Your task to perform on an android device: turn on showing notifications on the lock screen Image 0: 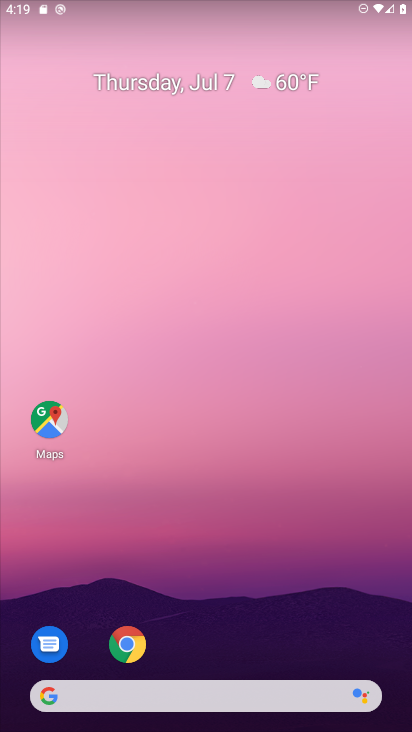
Step 0: drag from (309, 627) to (208, 148)
Your task to perform on an android device: turn on showing notifications on the lock screen Image 1: 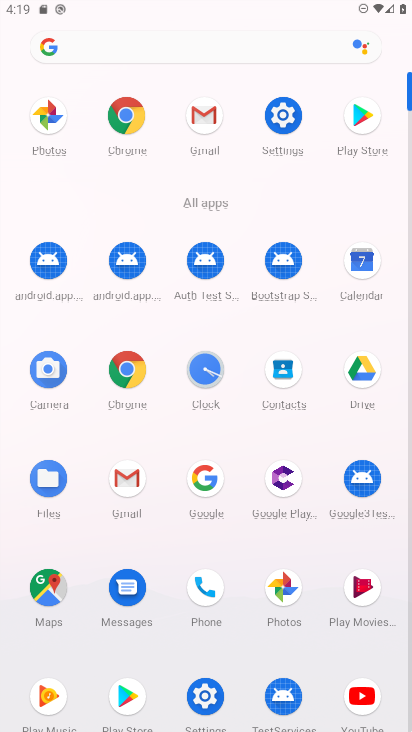
Step 1: click (294, 127)
Your task to perform on an android device: turn on showing notifications on the lock screen Image 2: 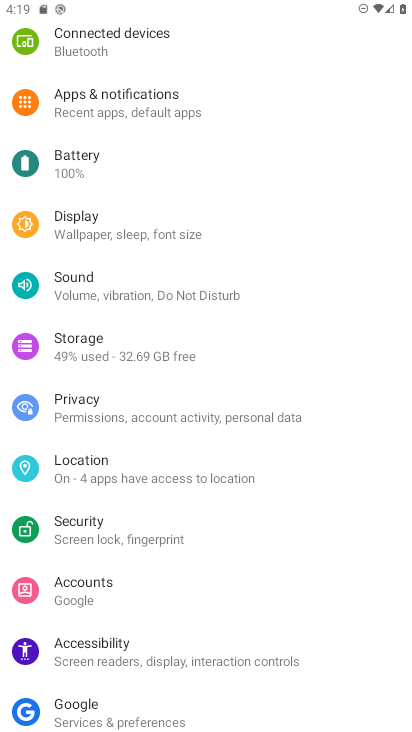
Step 2: click (141, 115)
Your task to perform on an android device: turn on showing notifications on the lock screen Image 3: 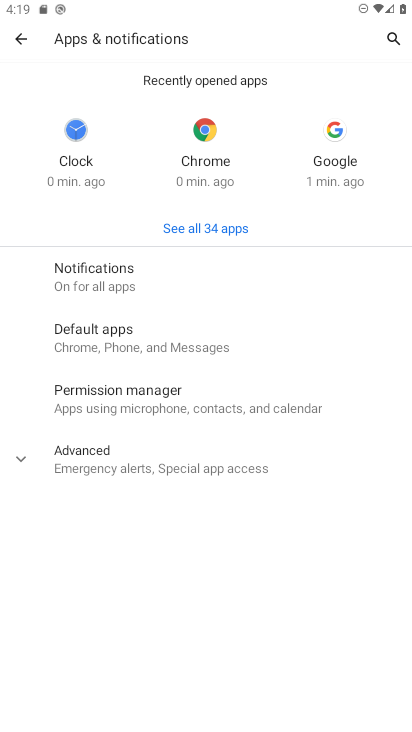
Step 3: click (174, 276)
Your task to perform on an android device: turn on showing notifications on the lock screen Image 4: 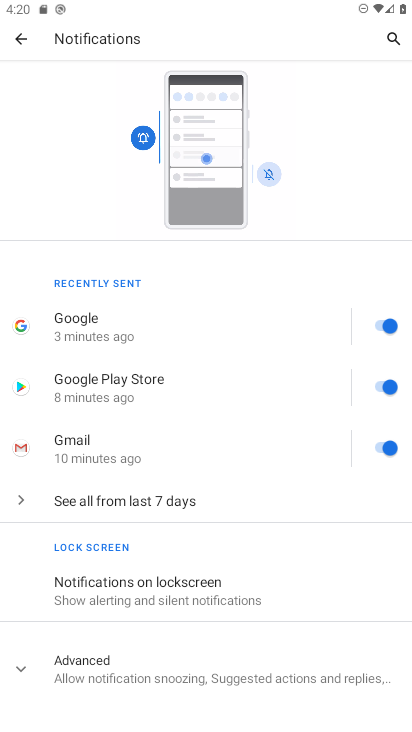
Step 4: click (234, 594)
Your task to perform on an android device: turn on showing notifications on the lock screen Image 5: 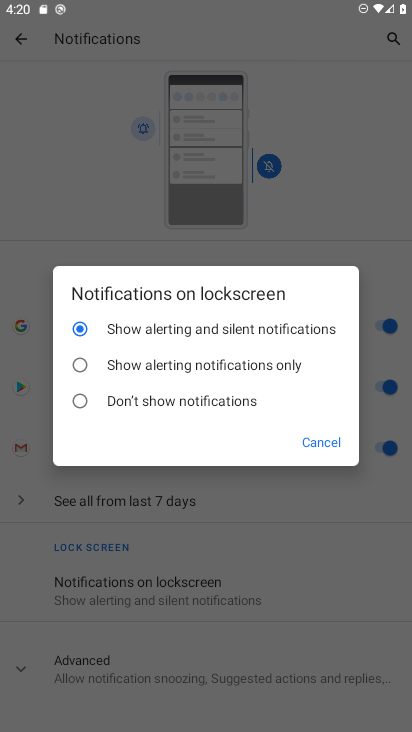
Step 5: task complete